Your task to perform on an android device: find snoozed emails in the gmail app Image 0: 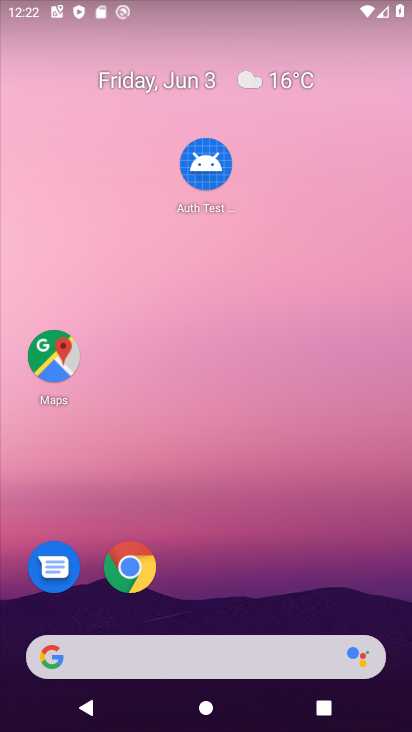
Step 0: drag from (169, 591) to (226, 134)
Your task to perform on an android device: find snoozed emails in the gmail app Image 1: 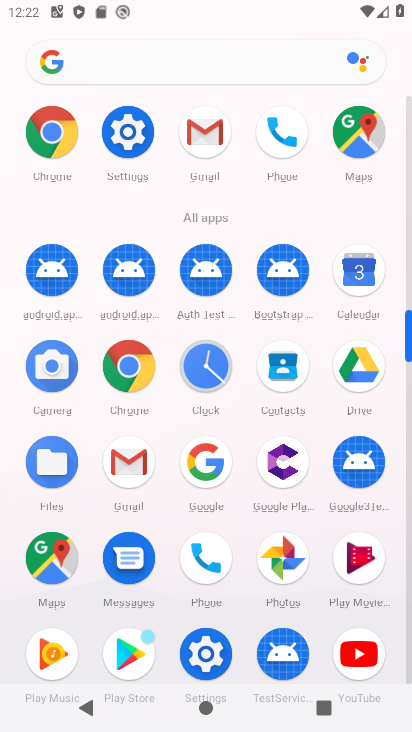
Step 1: click (190, 122)
Your task to perform on an android device: find snoozed emails in the gmail app Image 2: 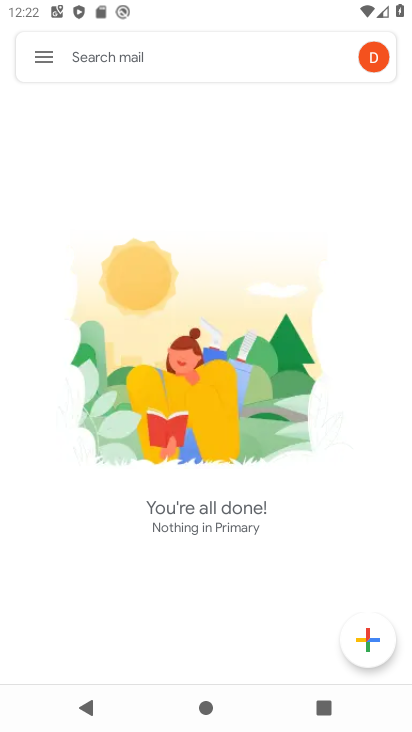
Step 2: click (46, 65)
Your task to perform on an android device: find snoozed emails in the gmail app Image 3: 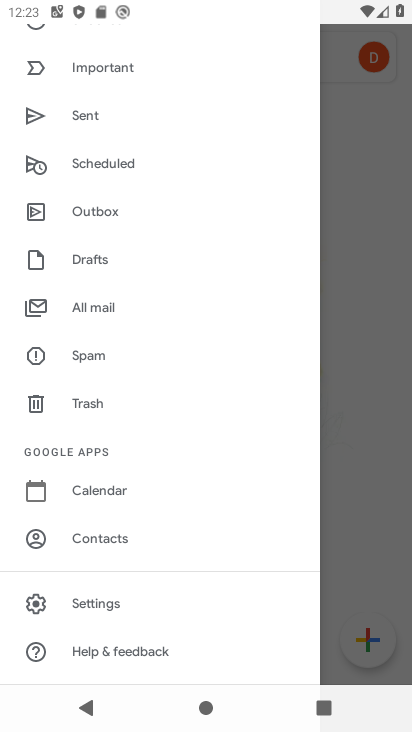
Step 3: drag from (181, 154) to (225, 578)
Your task to perform on an android device: find snoozed emails in the gmail app Image 4: 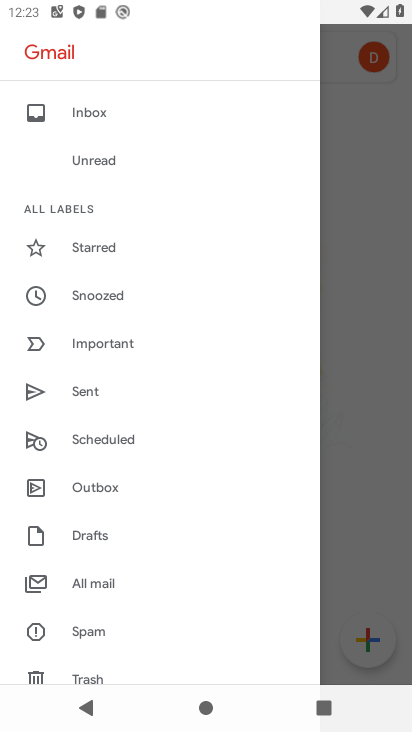
Step 4: click (135, 293)
Your task to perform on an android device: find snoozed emails in the gmail app Image 5: 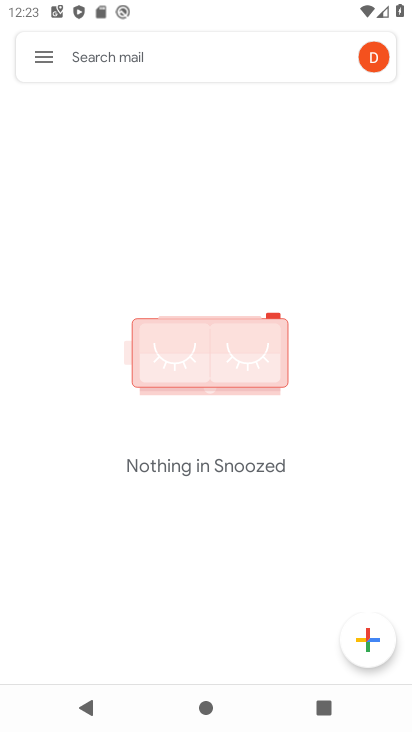
Step 5: task complete